Your task to perform on an android device: find photos in the google photos app Image 0: 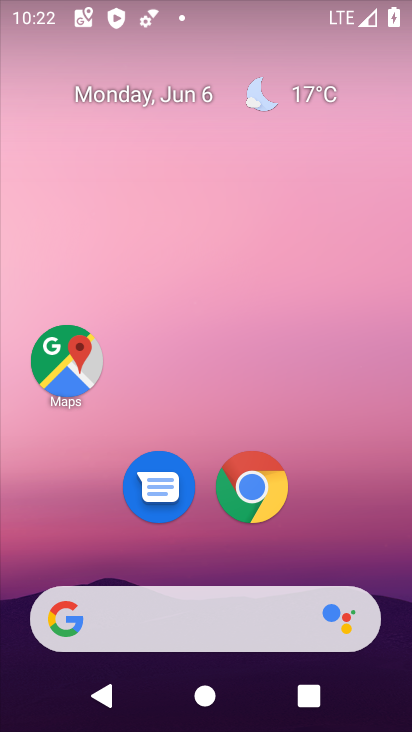
Step 0: drag from (399, 699) to (394, 349)
Your task to perform on an android device: find photos in the google photos app Image 1: 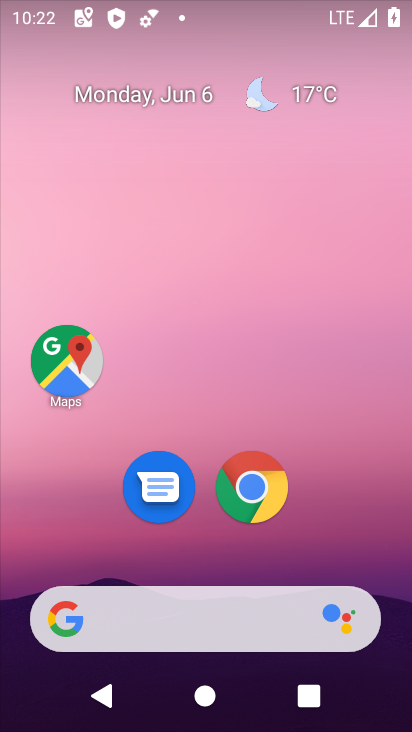
Step 1: drag from (399, 709) to (389, 112)
Your task to perform on an android device: find photos in the google photos app Image 2: 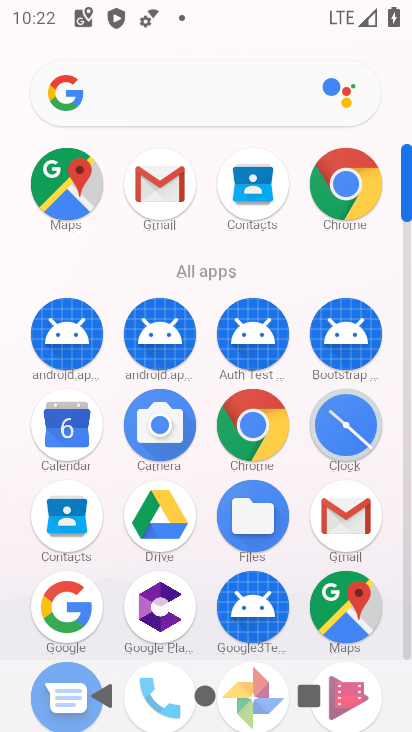
Step 2: drag from (214, 604) to (222, 381)
Your task to perform on an android device: find photos in the google photos app Image 3: 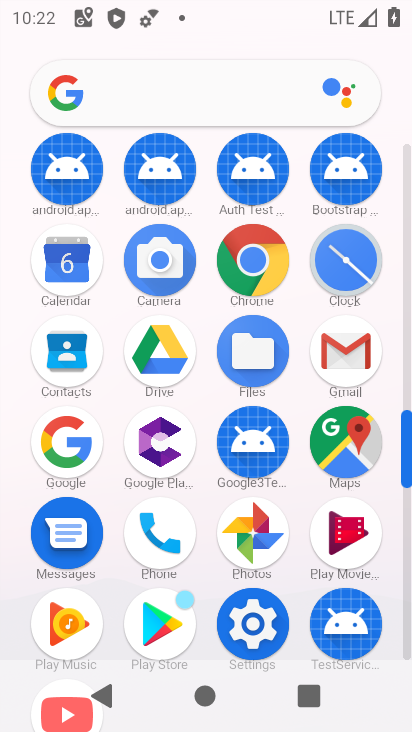
Step 3: click (259, 558)
Your task to perform on an android device: find photos in the google photos app Image 4: 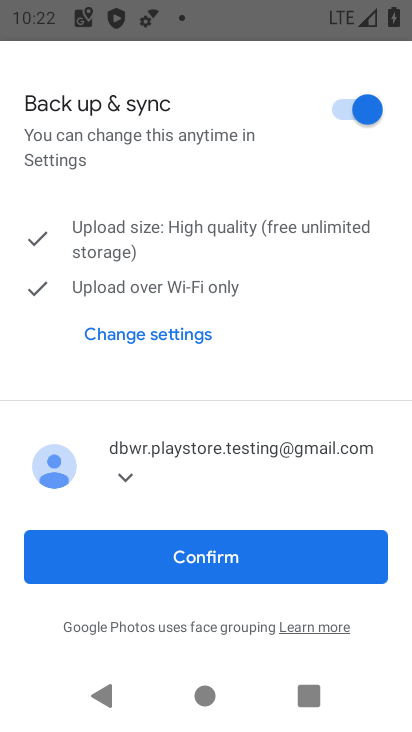
Step 4: click (259, 558)
Your task to perform on an android device: find photos in the google photos app Image 5: 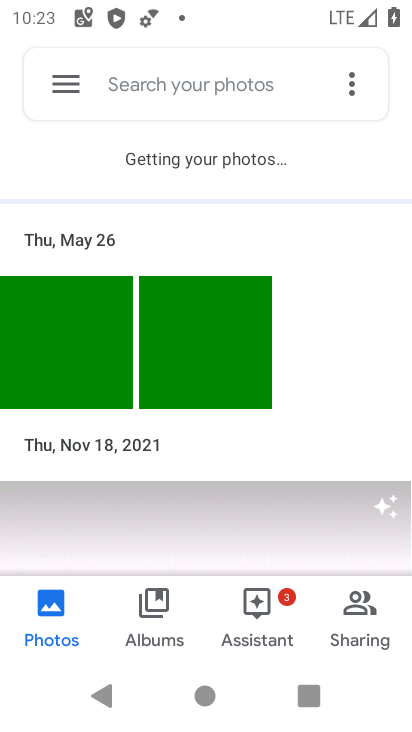
Step 5: task complete